Your task to perform on an android device: Open calendar and show me the second week of next month Image 0: 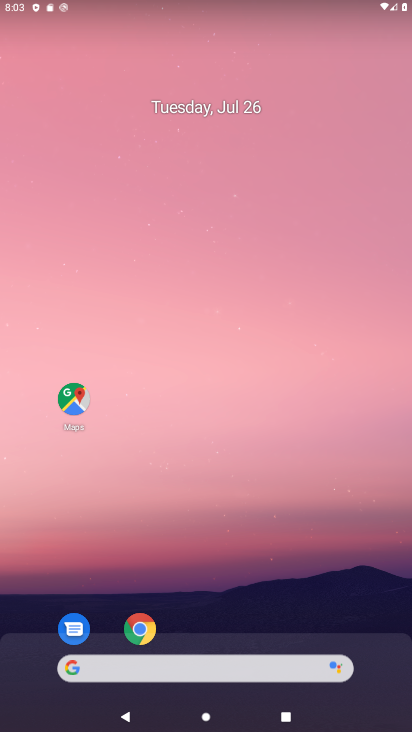
Step 0: drag from (191, 646) to (108, 64)
Your task to perform on an android device: Open calendar and show me the second week of next month Image 1: 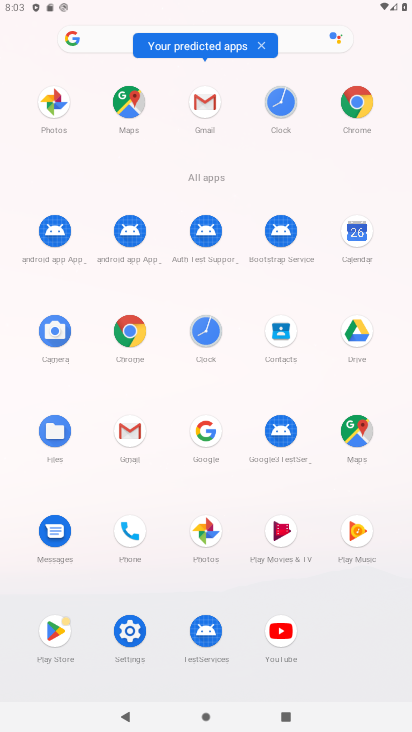
Step 1: click (357, 243)
Your task to perform on an android device: Open calendar and show me the second week of next month Image 2: 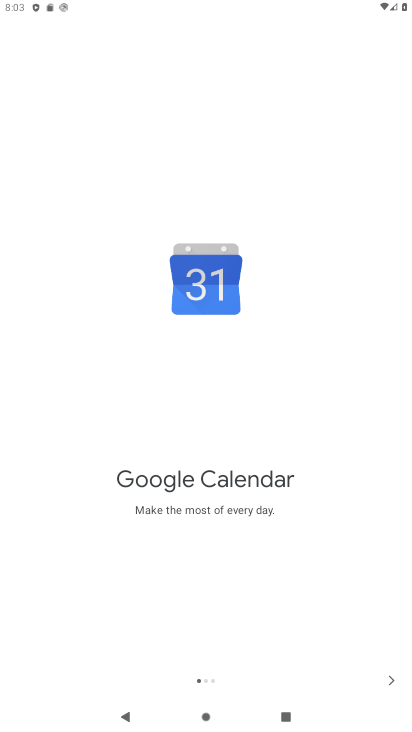
Step 2: click (385, 678)
Your task to perform on an android device: Open calendar and show me the second week of next month Image 3: 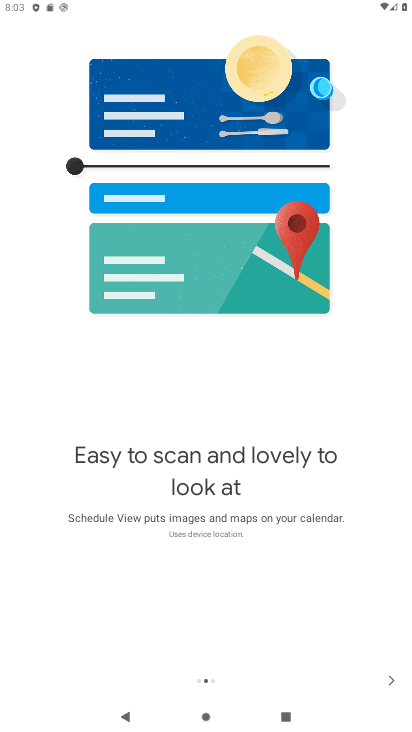
Step 3: click (385, 678)
Your task to perform on an android device: Open calendar and show me the second week of next month Image 4: 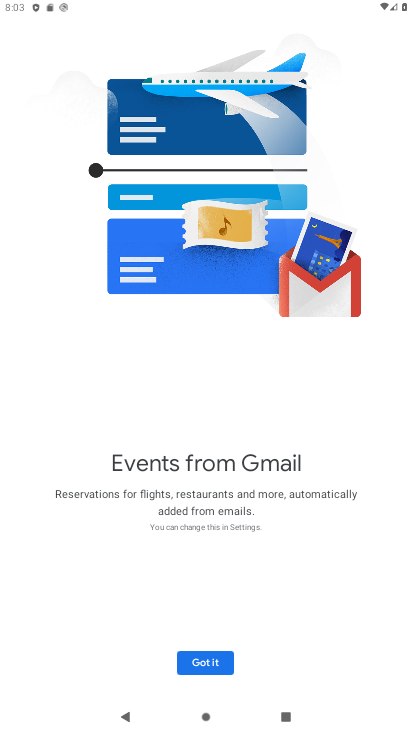
Step 4: click (223, 655)
Your task to perform on an android device: Open calendar and show me the second week of next month Image 5: 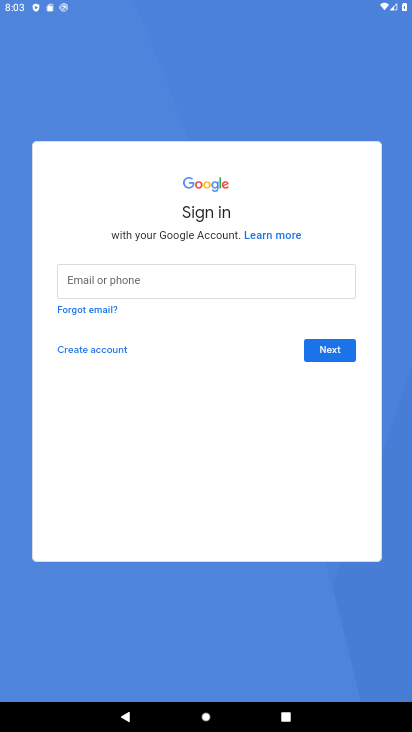
Step 5: task complete